Your task to perform on an android device: open sync settings in chrome Image 0: 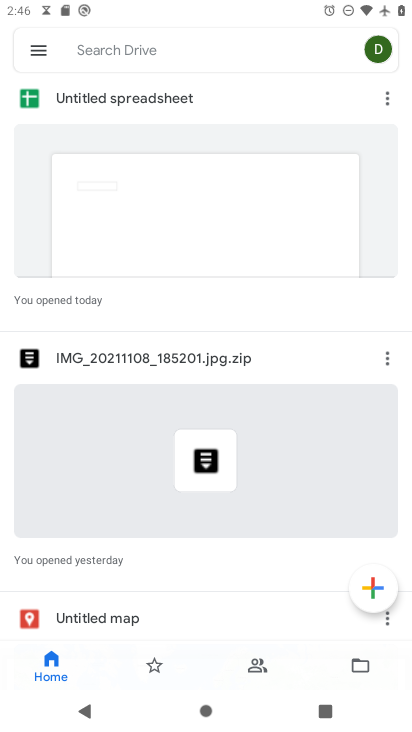
Step 0: press home button
Your task to perform on an android device: open sync settings in chrome Image 1: 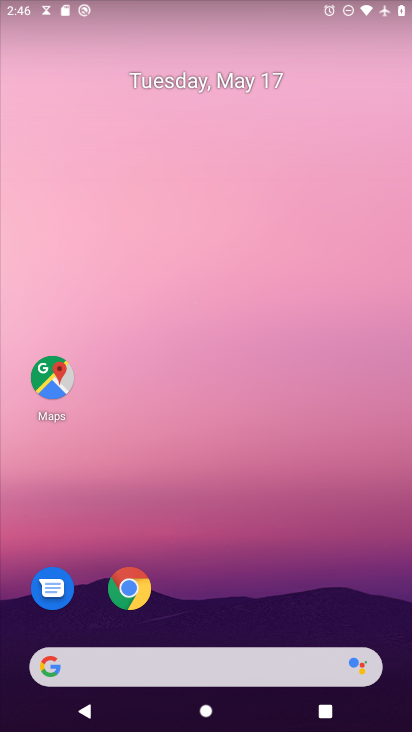
Step 1: click (108, 605)
Your task to perform on an android device: open sync settings in chrome Image 2: 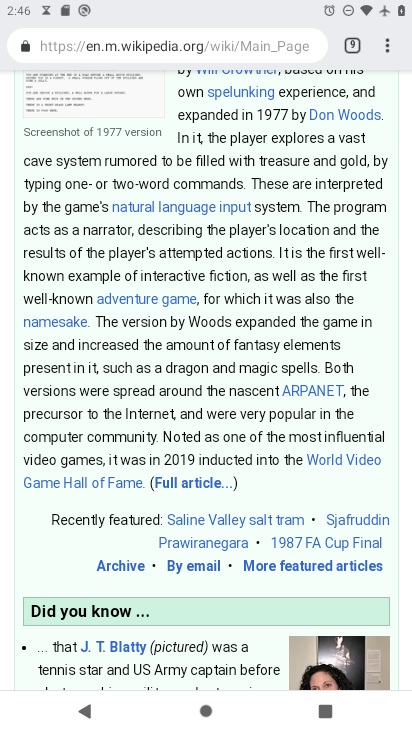
Step 2: click (386, 41)
Your task to perform on an android device: open sync settings in chrome Image 3: 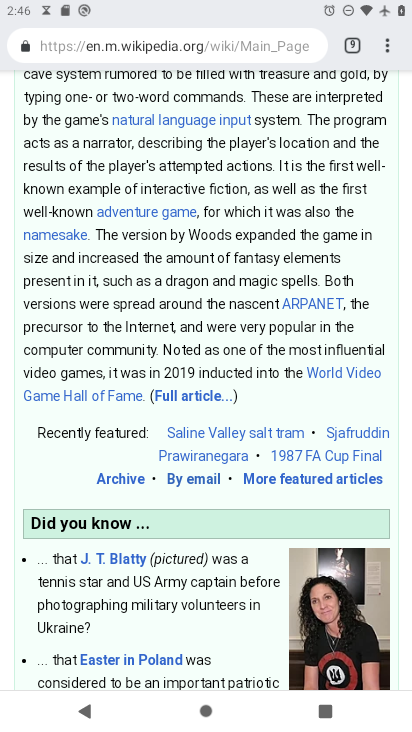
Step 3: click (387, 52)
Your task to perform on an android device: open sync settings in chrome Image 4: 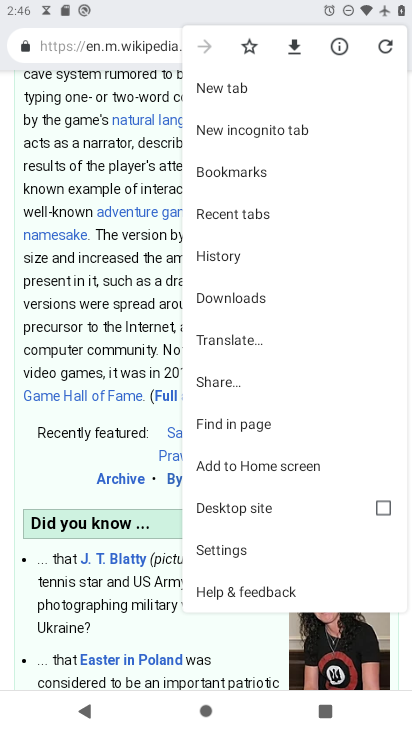
Step 4: click (234, 551)
Your task to perform on an android device: open sync settings in chrome Image 5: 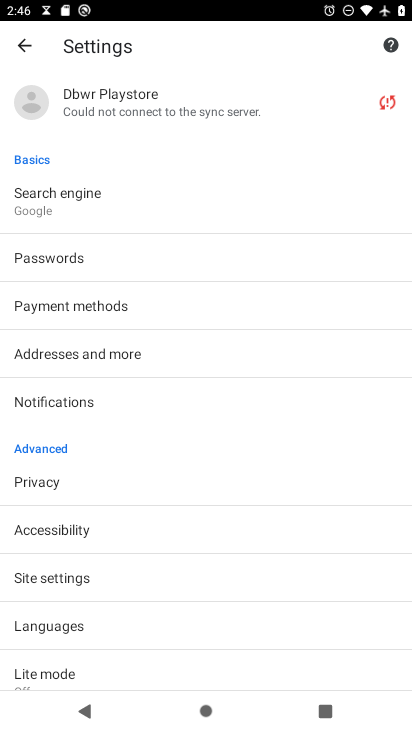
Step 5: click (50, 581)
Your task to perform on an android device: open sync settings in chrome Image 6: 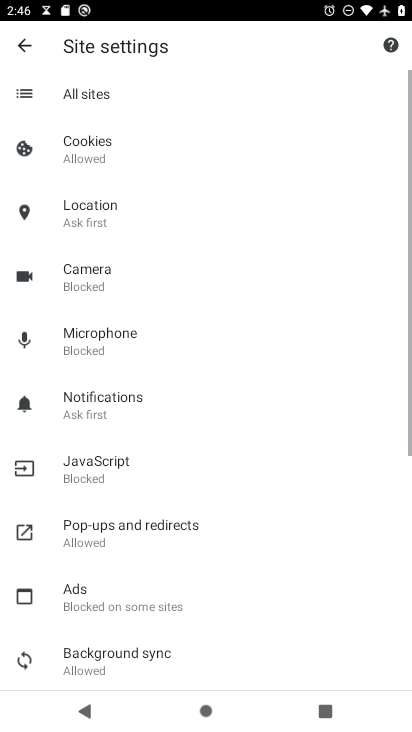
Step 6: click (132, 650)
Your task to perform on an android device: open sync settings in chrome Image 7: 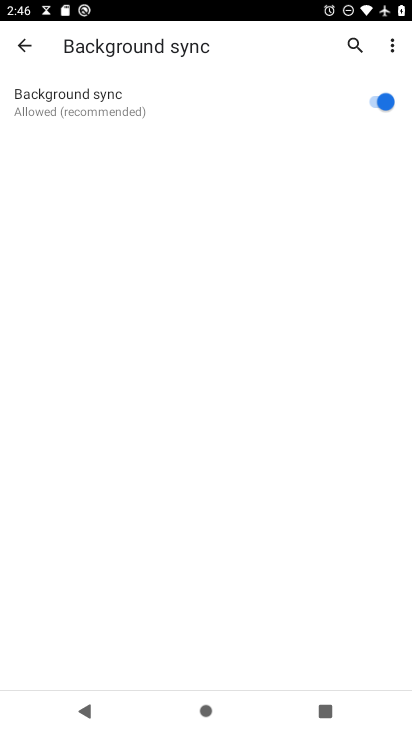
Step 7: task complete